Your task to perform on an android device: Go to Google Image 0: 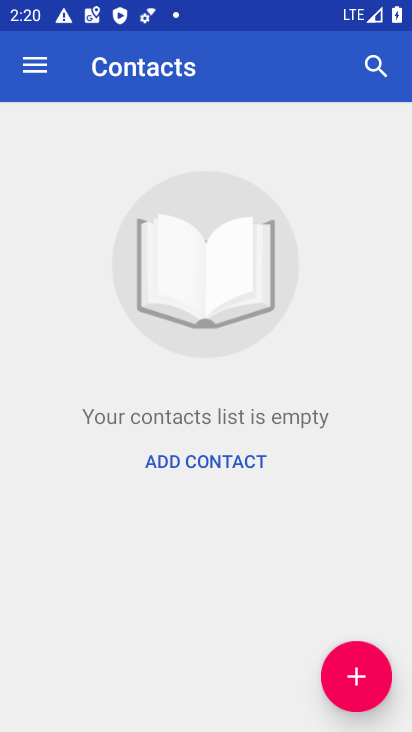
Step 0: press home button
Your task to perform on an android device: Go to Google Image 1: 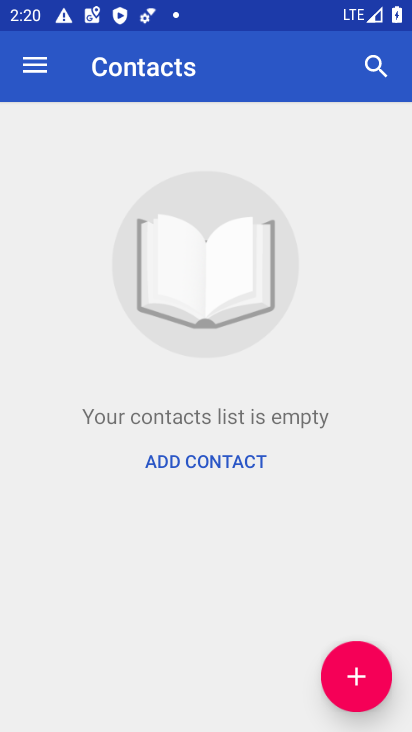
Step 1: press home button
Your task to perform on an android device: Go to Google Image 2: 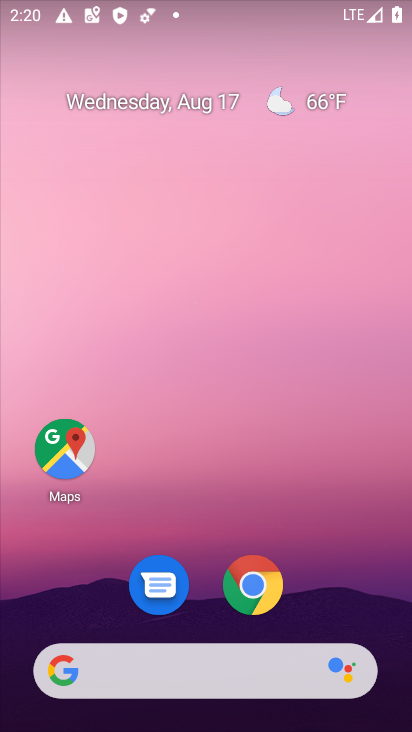
Step 2: click (262, 678)
Your task to perform on an android device: Go to Google Image 3: 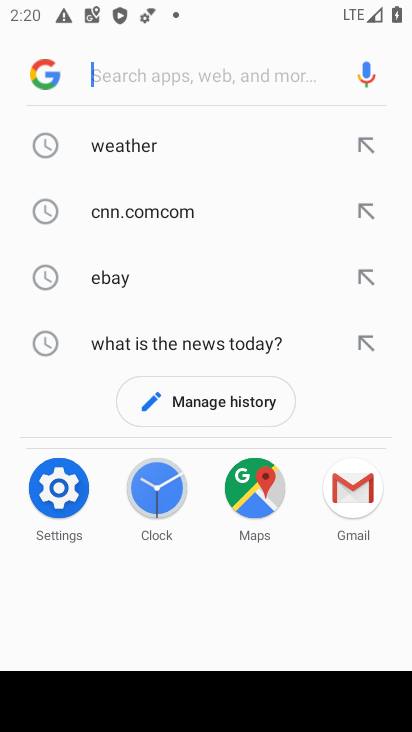
Step 3: click (41, 68)
Your task to perform on an android device: Go to Google Image 4: 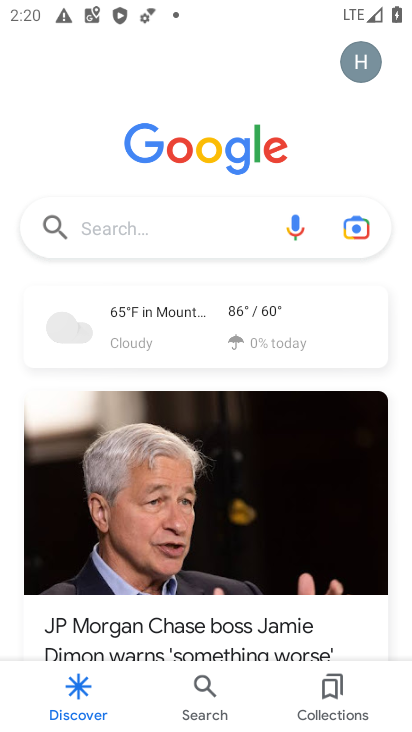
Step 4: task complete